Your task to perform on an android device: Search for seafood restaurants on Google Maps Image 0: 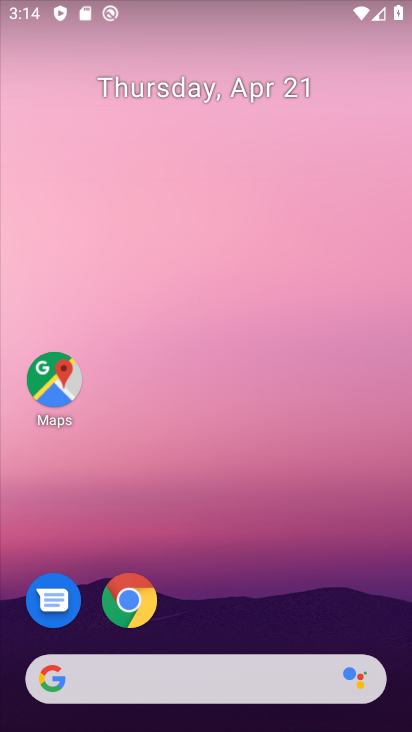
Step 0: drag from (295, 618) to (368, 66)
Your task to perform on an android device: Search for seafood restaurants on Google Maps Image 1: 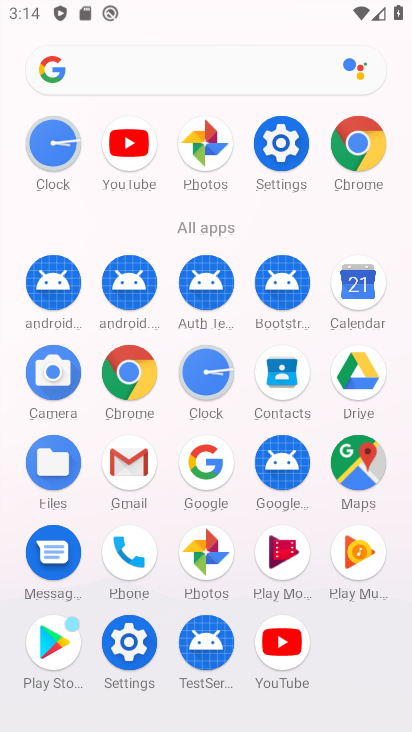
Step 1: click (351, 474)
Your task to perform on an android device: Search for seafood restaurants on Google Maps Image 2: 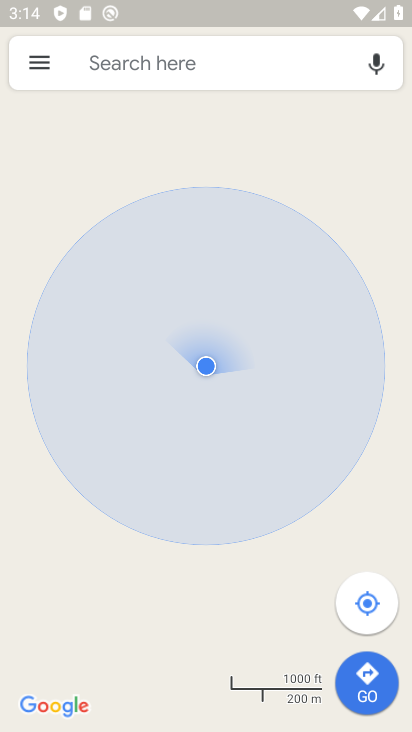
Step 2: click (118, 61)
Your task to perform on an android device: Search for seafood restaurants on Google Maps Image 3: 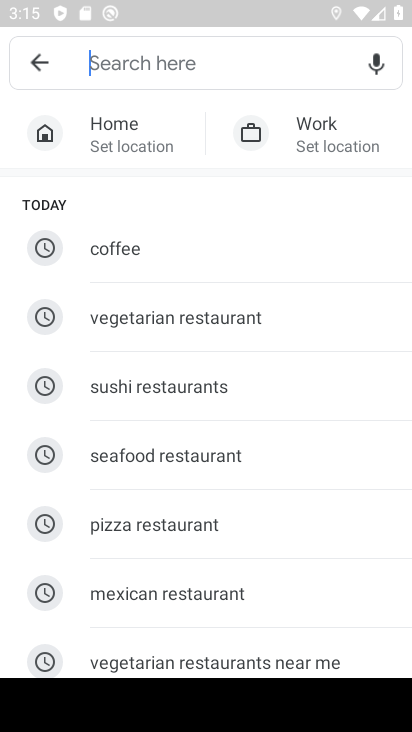
Step 3: type "seafood restaurants"
Your task to perform on an android device: Search for seafood restaurants on Google Maps Image 4: 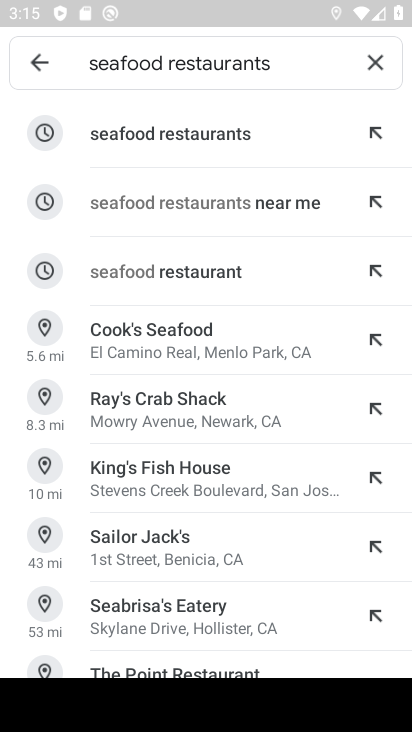
Step 4: click (255, 136)
Your task to perform on an android device: Search for seafood restaurants on Google Maps Image 5: 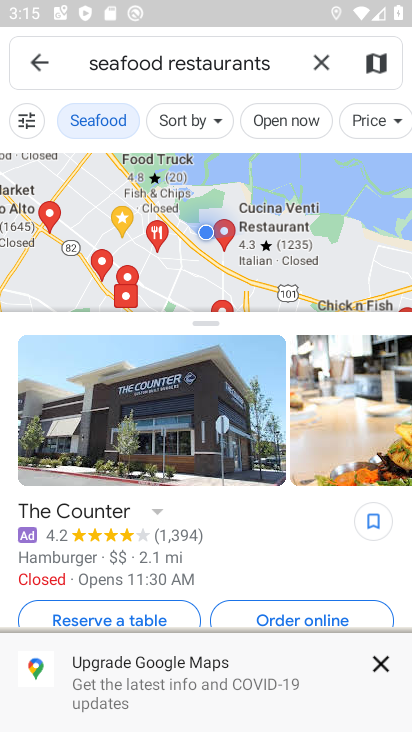
Step 5: task complete